Your task to perform on an android device: Open Chrome and go to settings Image 0: 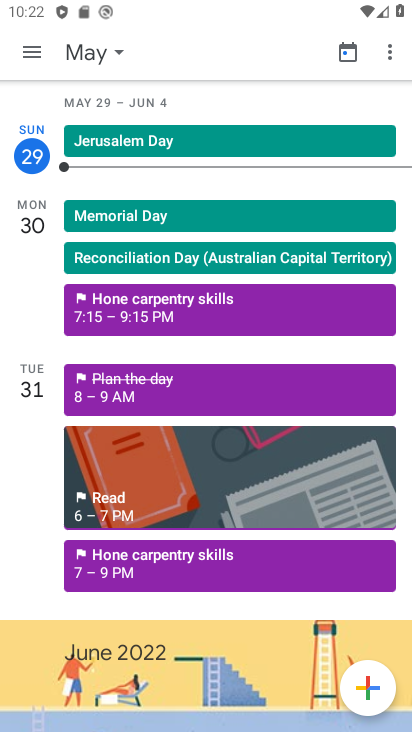
Step 0: press home button
Your task to perform on an android device: Open Chrome and go to settings Image 1: 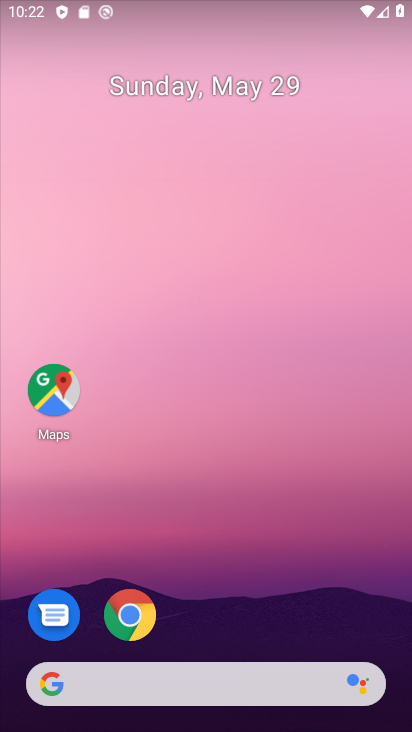
Step 1: drag from (365, 623) to (364, 187)
Your task to perform on an android device: Open Chrome and go to settings Image 2: 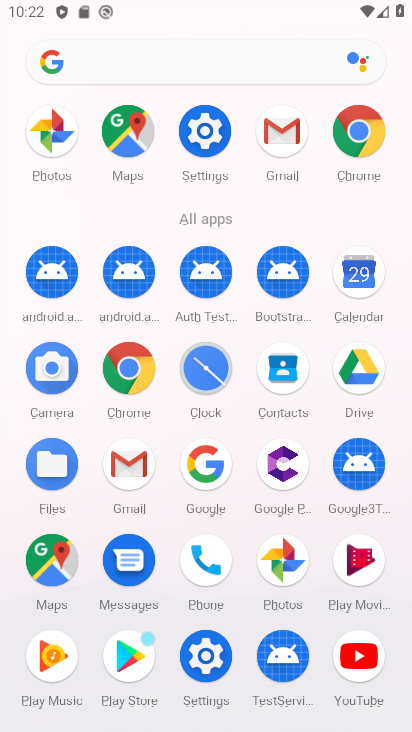
Step 2: click (130, 380)
Your task to perform on an android device: Open Chrome and go to settings Image 3: 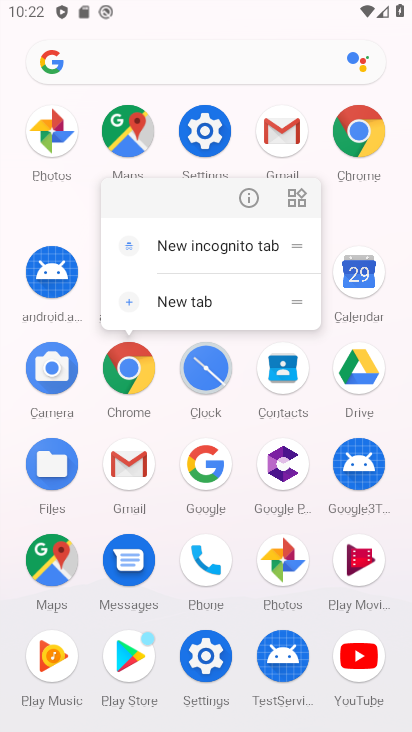
Step 3: click (130, 380)
Your task to perform on an android device: Open Chrome and go to settings Image 4: 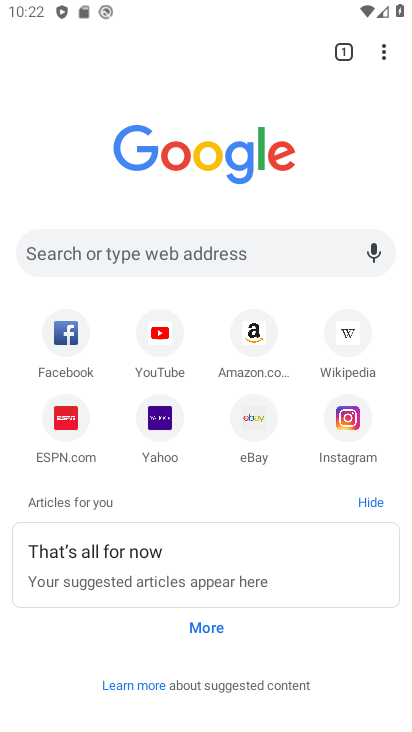
Step 4: click (382, 57)
Your task to perform on an android device: Open Chrome and go to settings Image 5: 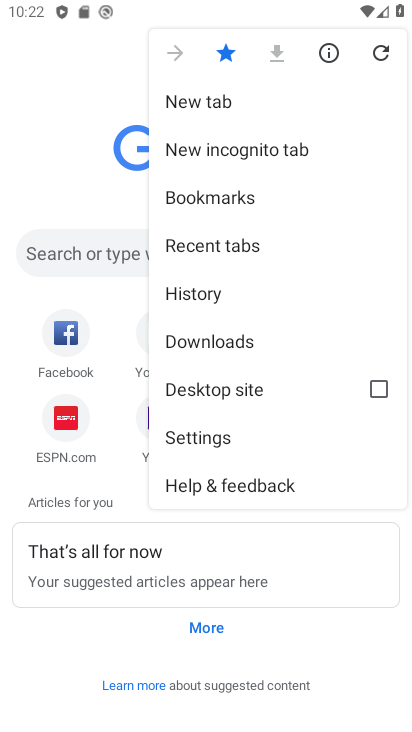
Step 5: click (259, 450)
Your task to perform on an android device: Open Chrome and go to settings Image 6: 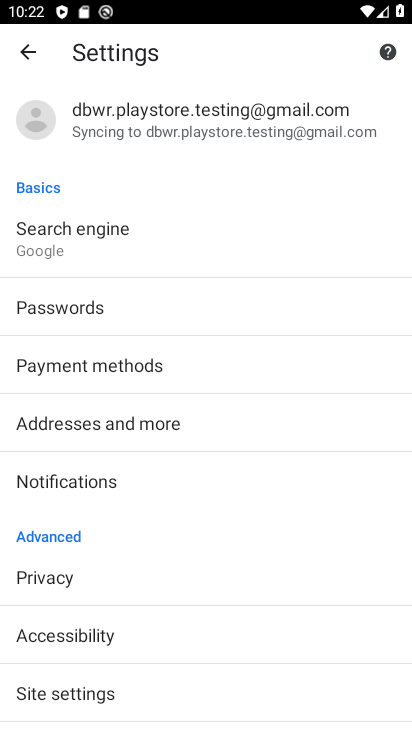
Step 6: task complete